Your task to perform on an android device: change the clock style Image 0: 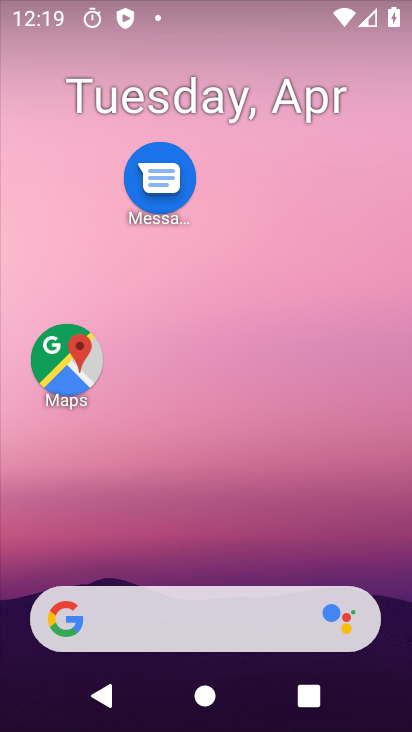
Step 0: drag from (207, 723) to (189, 123)
Your task to perform on an android device: change the clock style Image 1: 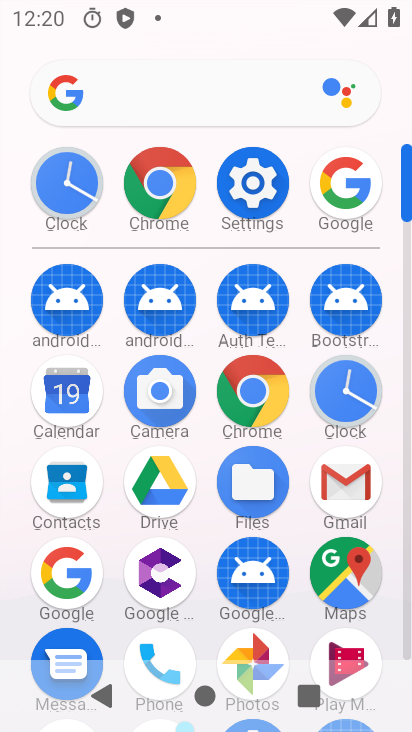
Step 1: click (346, 395)
Your task to perform on an android device: change the clock style Image 2: 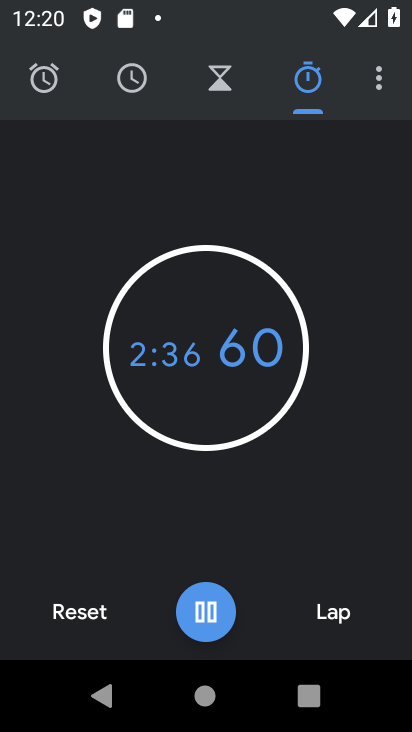
Step 2: click (380, 82)
Your task to perform on an android device: change the clock style Image 3: 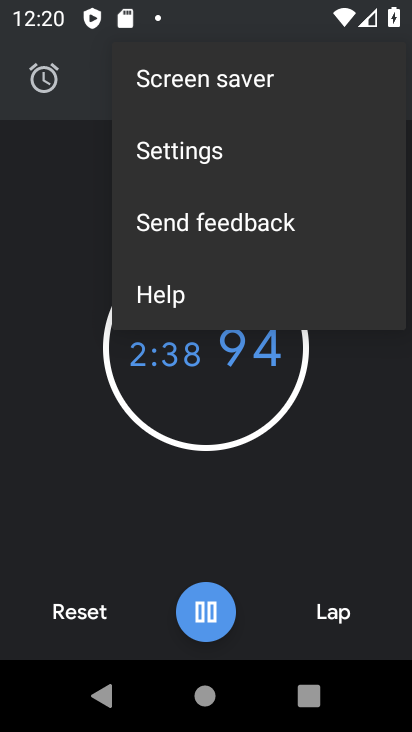
Step 3: click (184, 153)
Your task to perform on an android device: change the clock style Image 4: 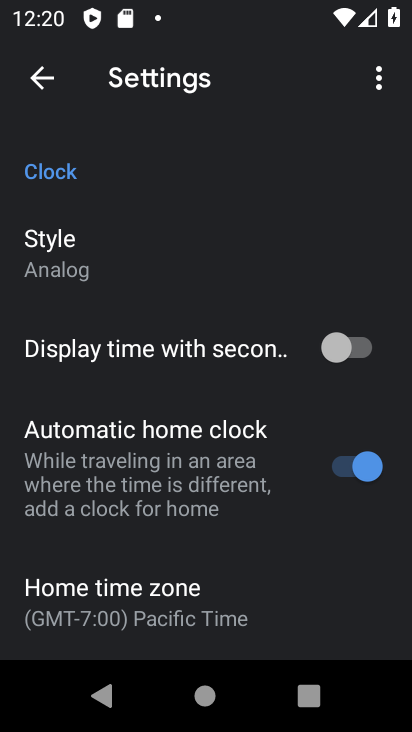
Step 4: click (53, 250)
Your task to perform on an android device: change the clock style Image 5: 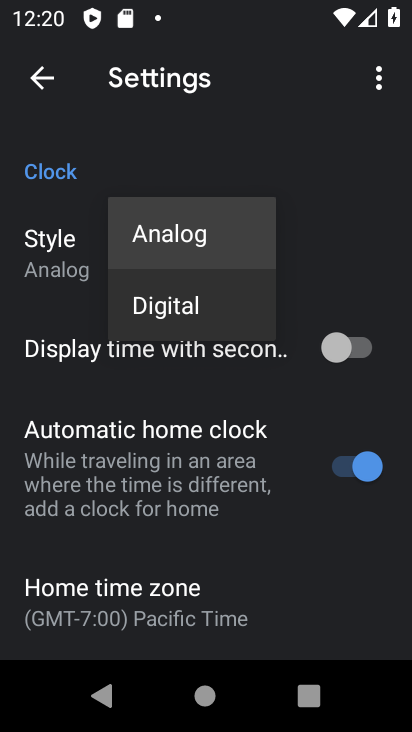
Step 5: click (159, 304)
Your task to perform on an android device: change the clock style Image 6: 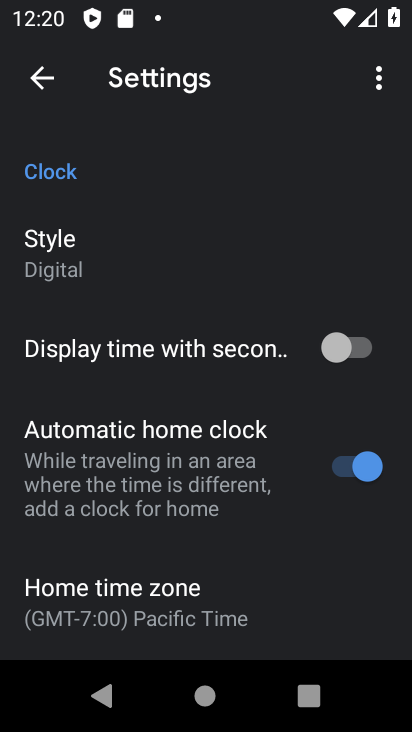
Step 6: task complete